Your task to perform on an android device: When is my next meeting? Image 0: 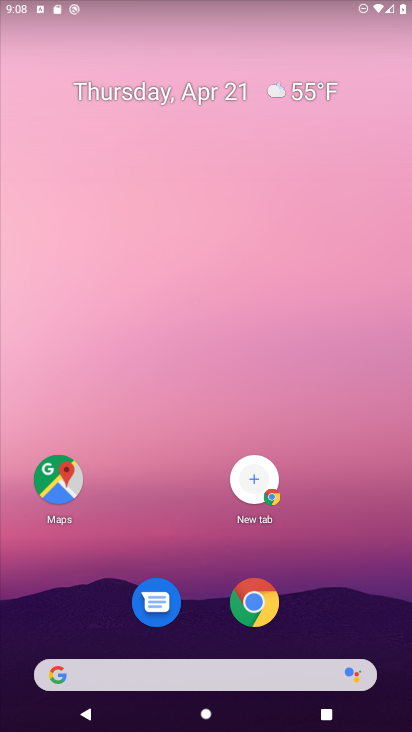
Step 0: click (161, 90)
Your task to perform on an android device: When is my next meeting? Image 1: 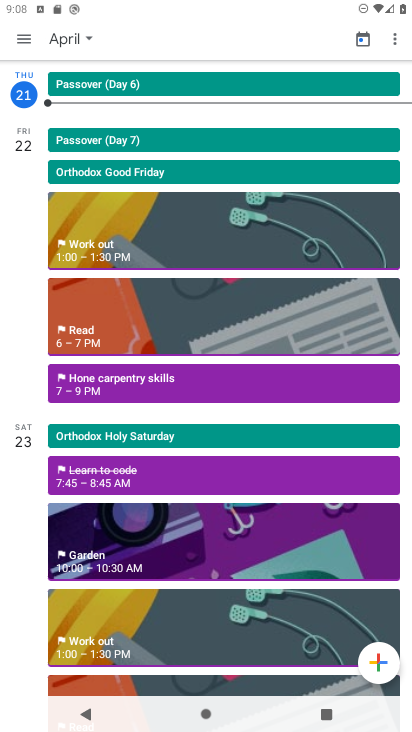
Step 1: click (14, 33)
Your task to perform on an android device: When is my next meeting? Image 2: 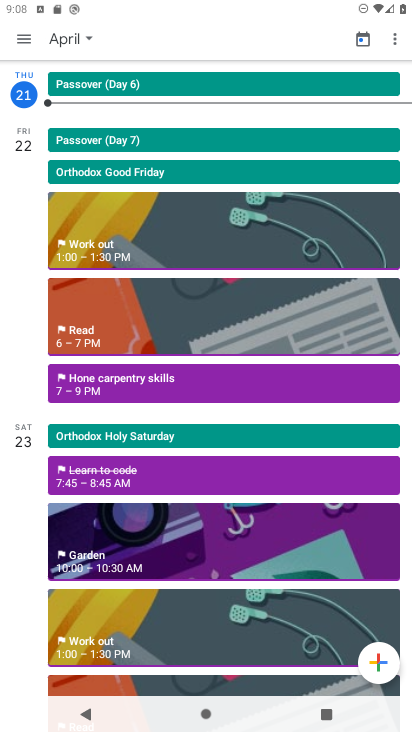
Step 2: click (14, 33)
Your task to perform on an android device: When is my next meeting? Image 3: 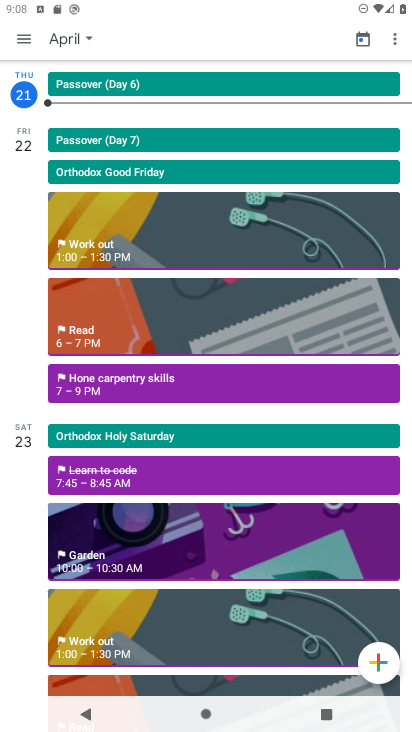
Step 3: click (26, 40)
Your task to perform on an android device: When is my next meeting? Image 4: 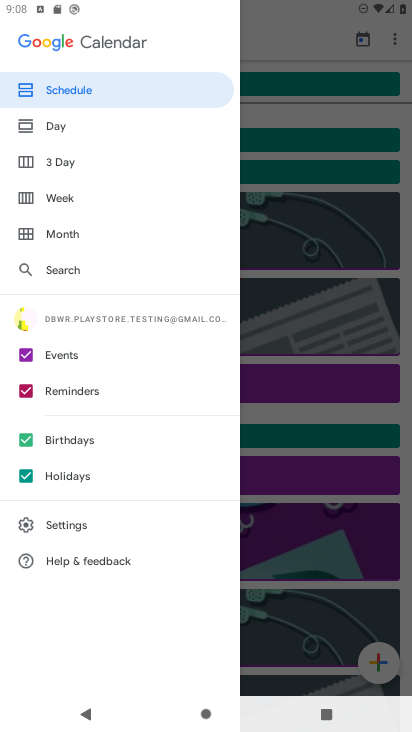
Step 4: click (139, 519)
Your task to perform on an android device: When is my next meeting? Image 5: 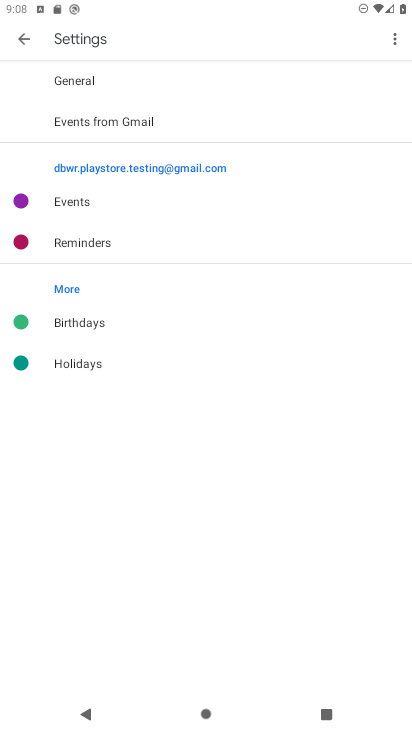
Step 5: click (69, 294)
Your task to perform on an android device: When is my next meeting? Image 6: 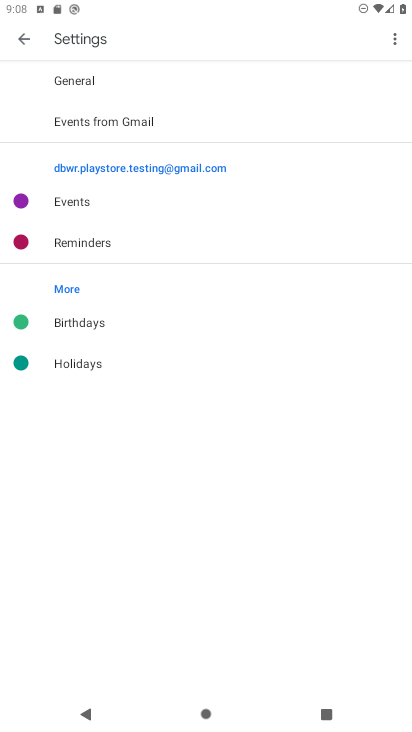
Step 6: click (67, 289)
Your task to perform on an android device: When is my next meeting? Image 7: 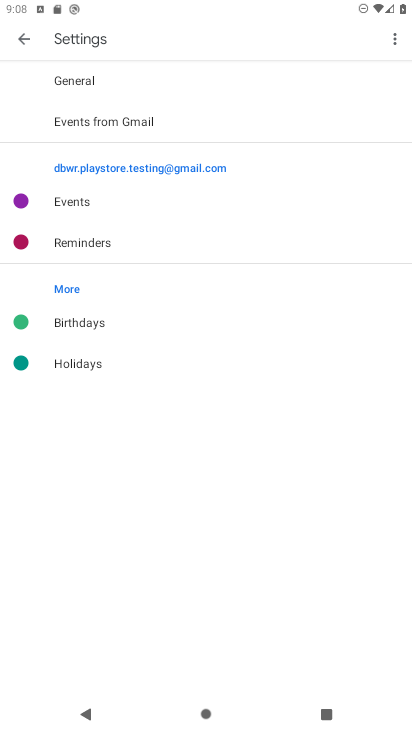
Step 7: click (67, 289)
Your task to perform on an android device: When is my next meeting? Image 8: 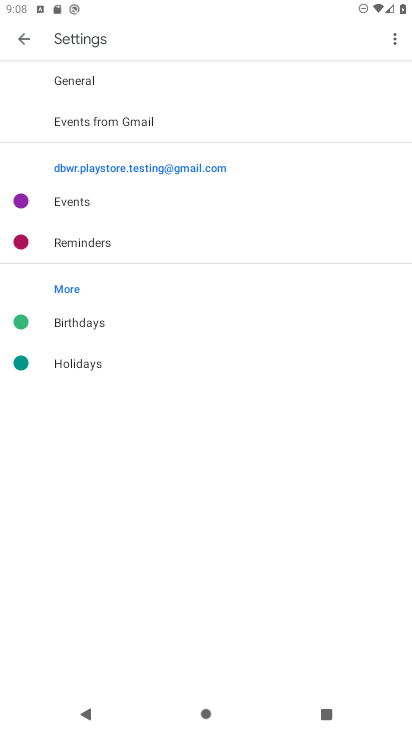
Step 8: task complete